Your task to perform on an android device: Open my contact list Image 0: 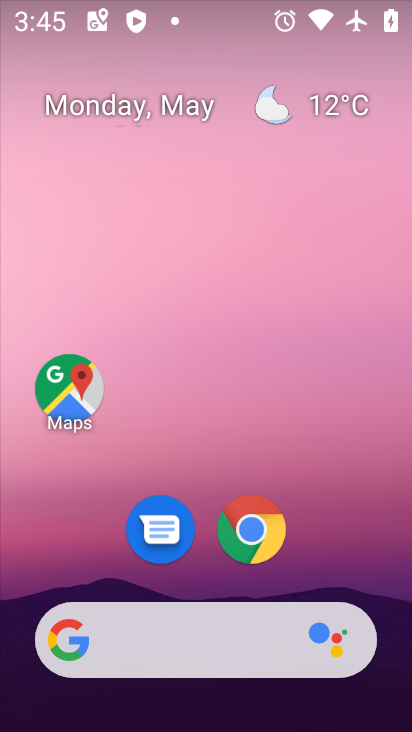
Step 0: drag from (314, 578) to (303, 102)
Your task to perform on an android device: Open my contact list Image 1: 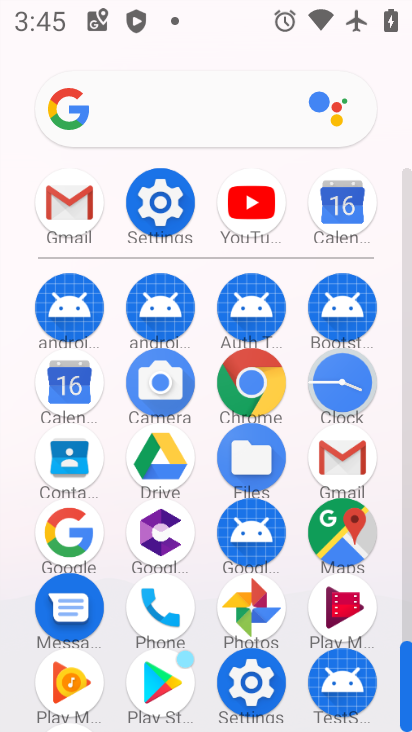
Step 1: click (63, 458)
Your task to perform on an android device: Open my contact list Image 2: 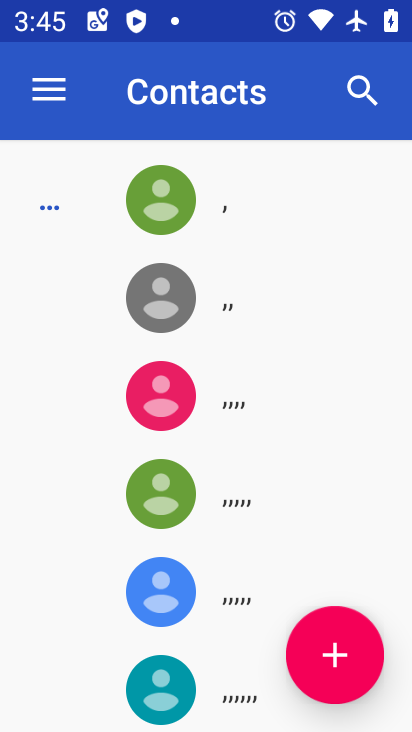
Step 2: task complete